Your task to perform on an android device: turn pop-ups on in chrome Image 0: 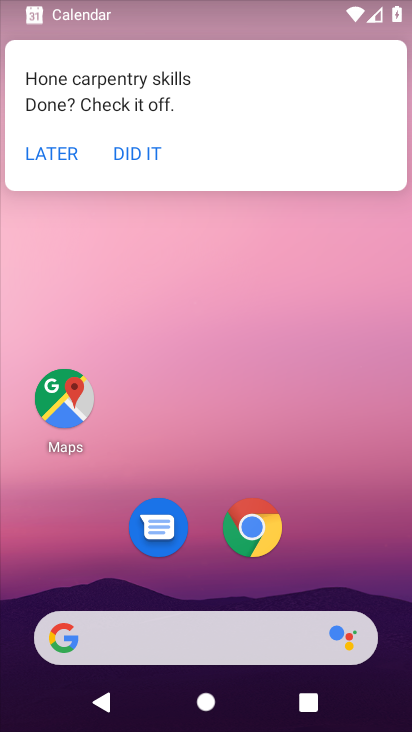
Step 0: drag from (344, 554) to (378, 11)
Your task to perform on an android device: turn pop-ups on in chrome Image 1: 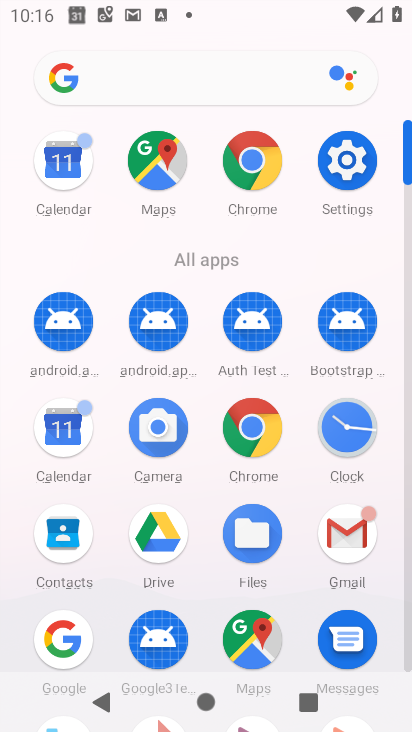
Step 1: click (237, 180)
Your task to perform on an android device: turn pop-ups on in chrome Image 2: 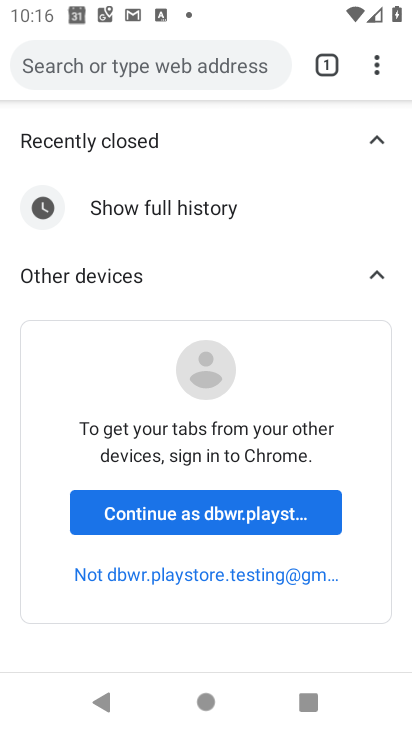
Step 2: drag from (379, 63) to (154, 554)
Your task to perform on an android device: turn pop-ups on in chrome Image 3: 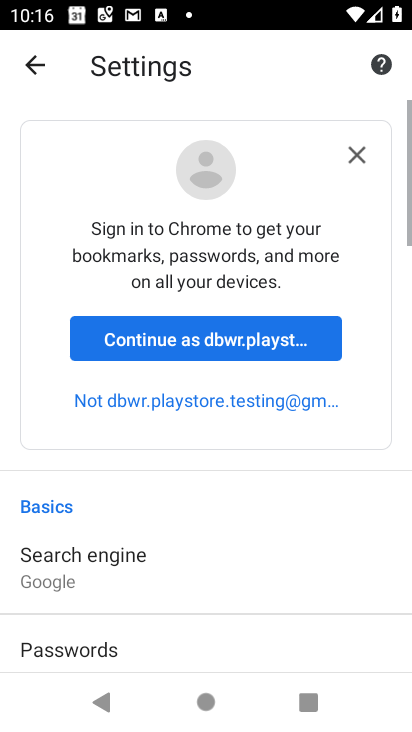
Step 3: drag from (193, 470) to (274, 135)
Your task to perform on an android device: turn pop-ups on in chrome Image 4: 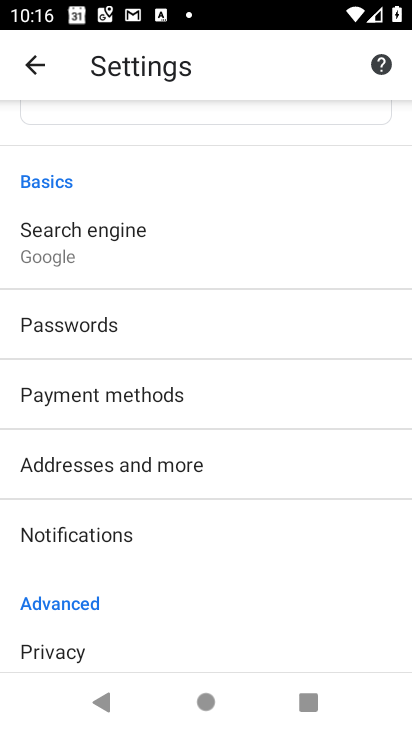
Step 4: drag from (196, 595) to (187, 204)
Your task to perform on an android device: turn pop-ups on in chrome Image 5: 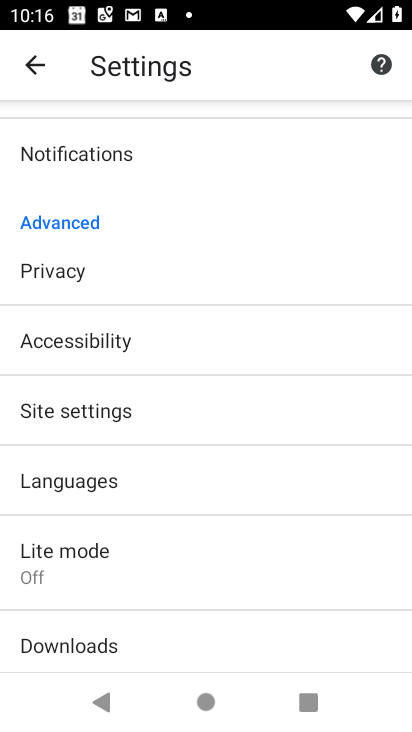
Step 5: click (204, 419)
Your task to perform on an android device: turn pop-ups on in chrome Image 6: 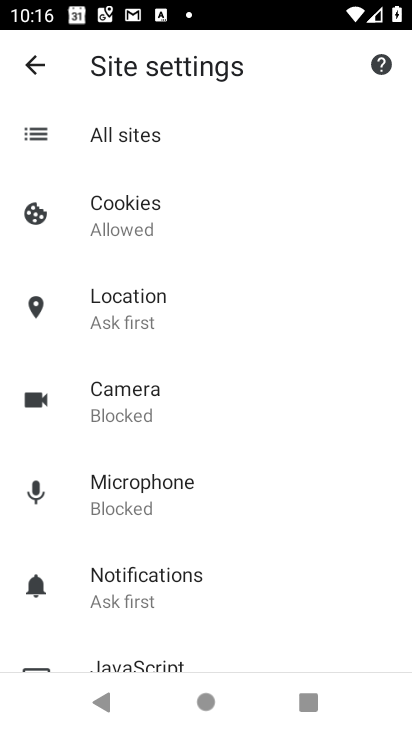
Step 6: drag from (203, 550) to (275, 235)
Your task to perform on an android device: turn pop-ups on in chrome Image 7: 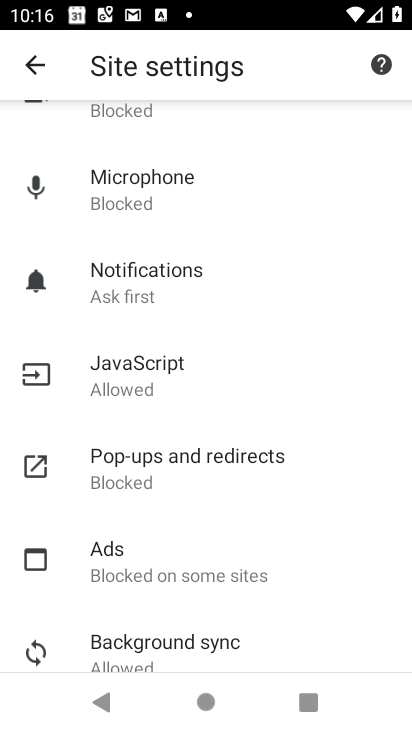
Step 7: click (206, 454)
Your task to perform on an android device: turn pop-ups on in chrome Image 8: 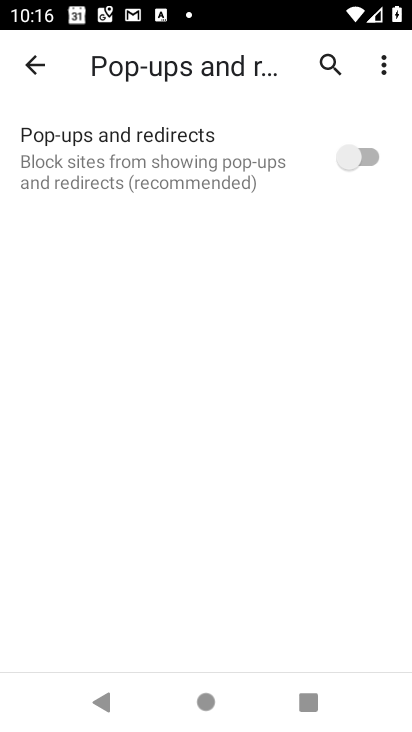
Step 8: click (355, 158)
Your task to perform on an android device: turn pop-ups on in chrome Image 9: 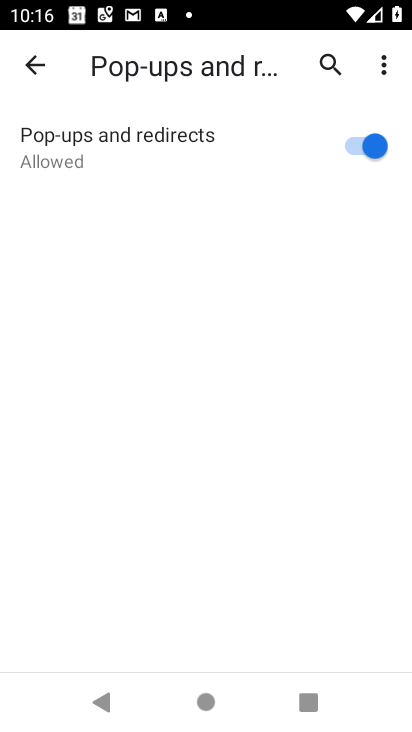
Step 9: task complete